Your task to perform on an android device: Is it going to rain today? Image 0: 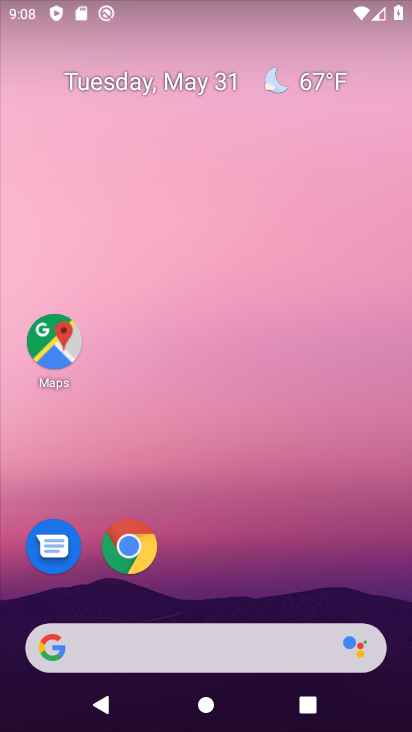
Step 0: drag from (205, 590) to (303, 71)
Your task to perform on an android device: Is it going to rain today? Image 1: 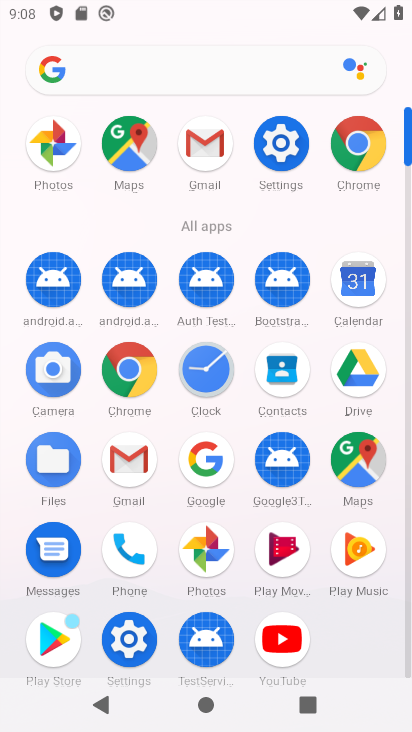
Step 1: click (210, 70)
Your task to perform on an android device: Is it going to rain today? Image 2: 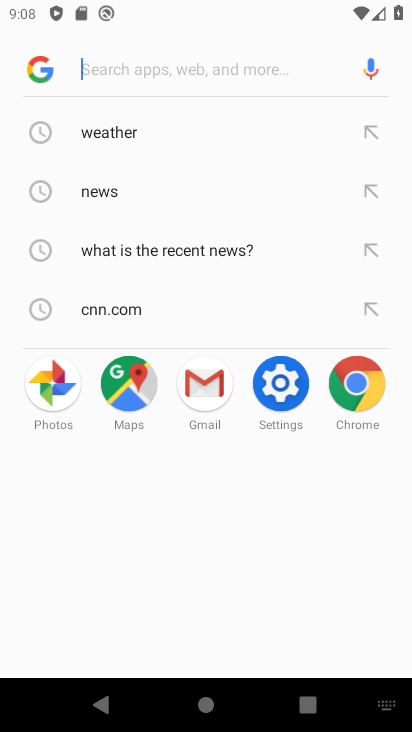
Step 2: click (120, 124)
Your task to perform on an android device: Is it going to rain today? Image 3: 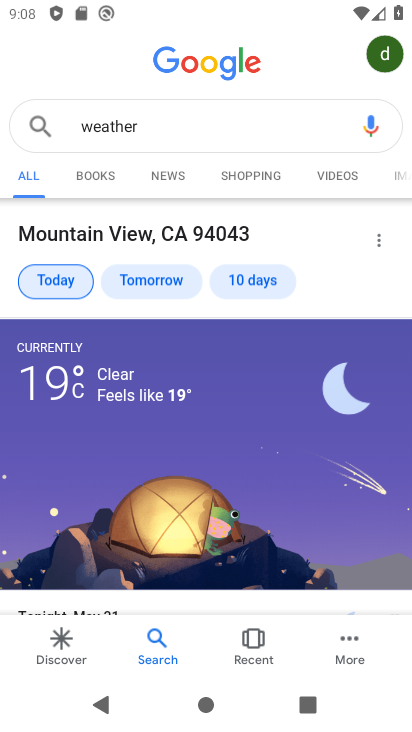
Step 3: task complete